Your task to perform on an android device: Do I have any events tomorrow? Image 0: 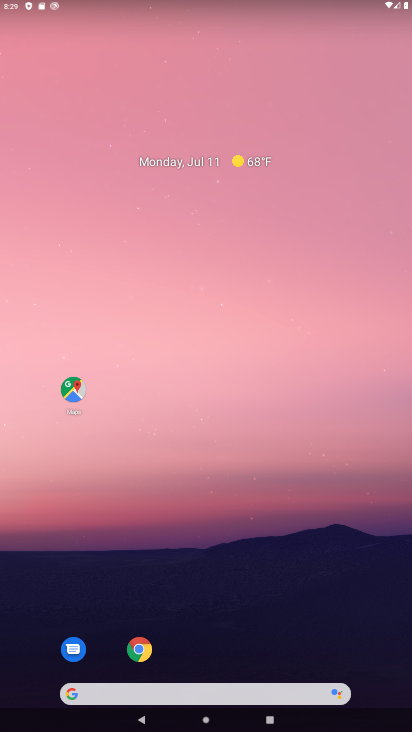
Step 0: drag from (217, 616) to (102, 62)
Your task to perform on an android device: Do I have any events tomorrow? Image 1: 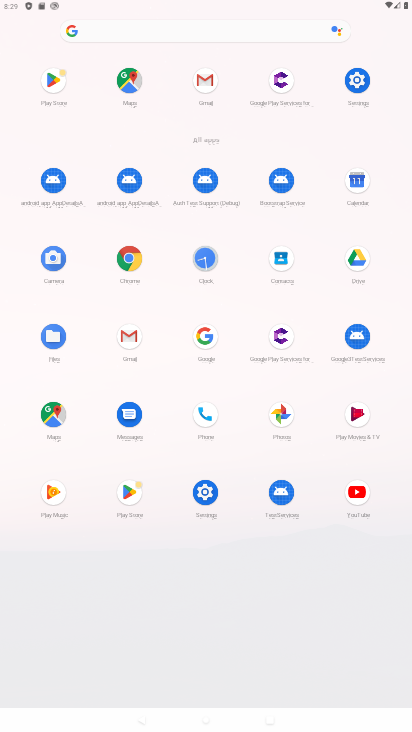
Step 1: click (354, 181)
Your task to perform on an android device: Do I have any events tomorrow? Image 2: 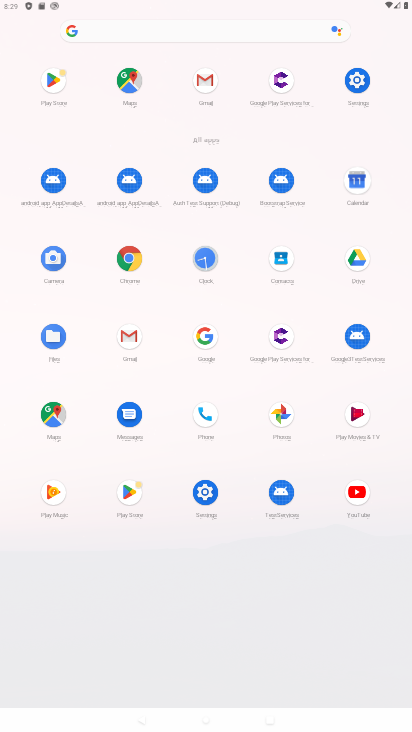
Step 2: click (354, 181)
Your task to perform on an android device: Do I have any events tomorrow? Image 3: 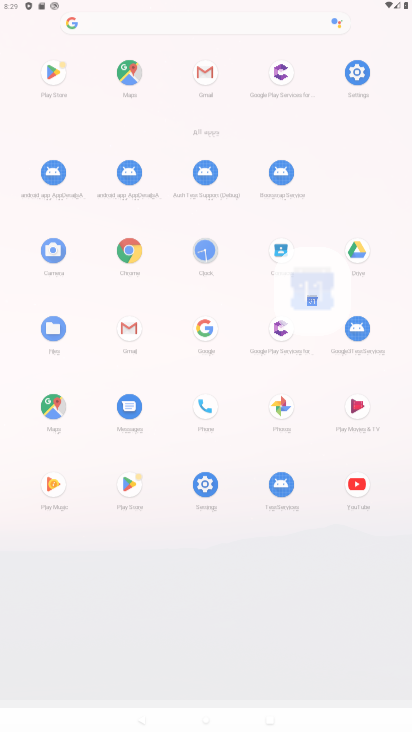
Step 3: click (354, 181)
Your task to perform on an android device: Do I have any events tomorrow? Image 4: 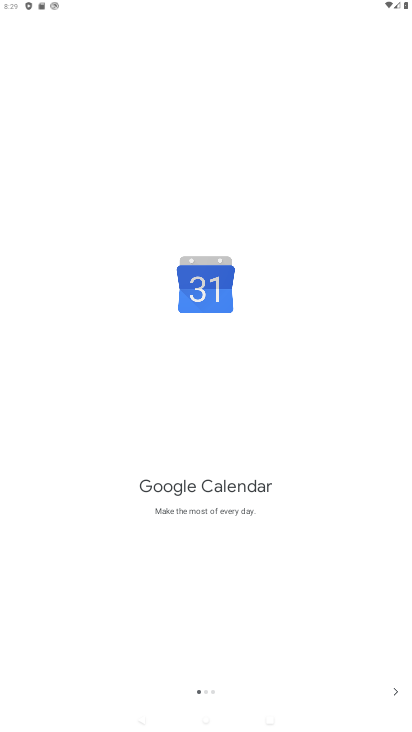
Step 4: click (392, 685)
Your task to perform on an android device: Do I have any events tomorrow? Image 5: 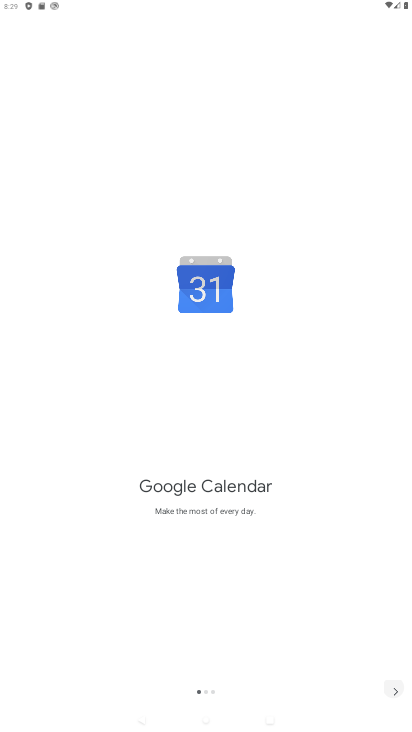
Step 5: click (392, 685)
Your task to perform on an android device: Do I have any events tomorrow? Image 6: 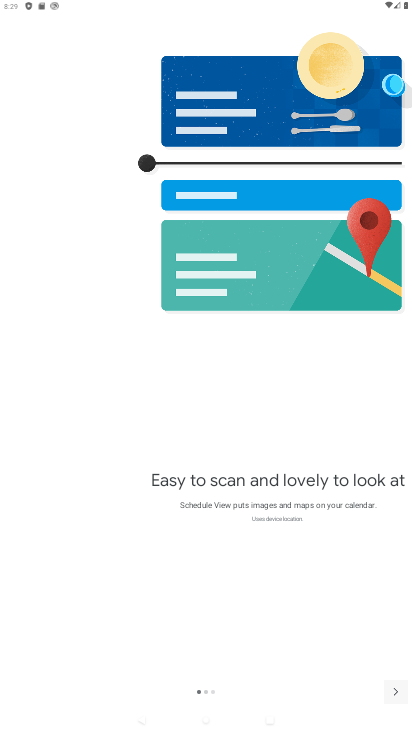
Step 6: click (394, 685)
Your task to perform on an android device: Do I have any events tomorrow? Image 7: 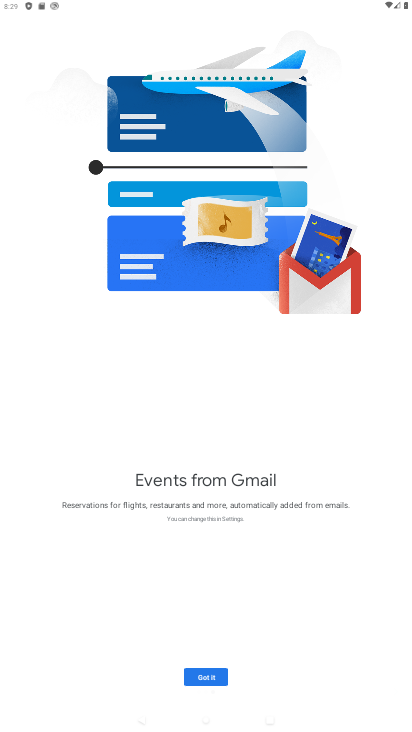
Step 7: click (395, 684)
Your task to perform on an android device: Do I have any events tomorrow? Image 8: 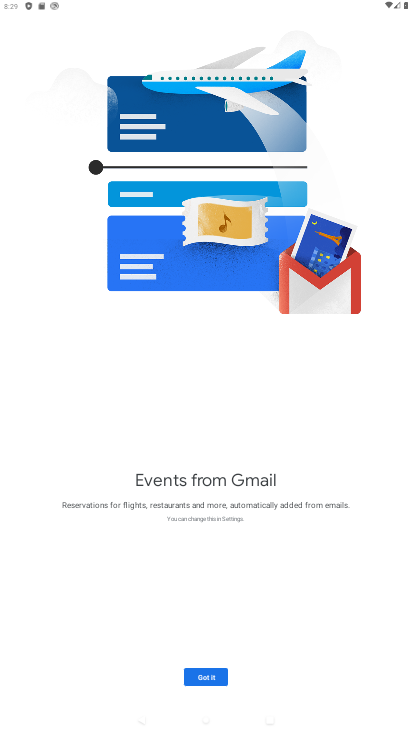
Step 8: click (396, 686)
Your task to perform on an android device: Do I have any events tomorrow? Image 9: 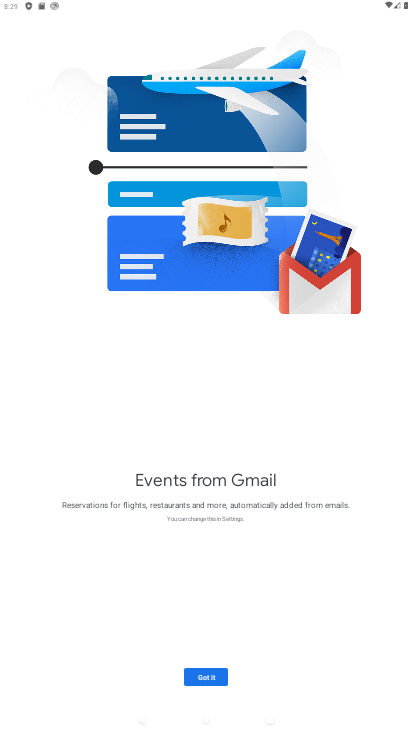
Step 9: click (218, 675)
Your task to perform on an android device: Do I have any events tomorrow? Image 10: 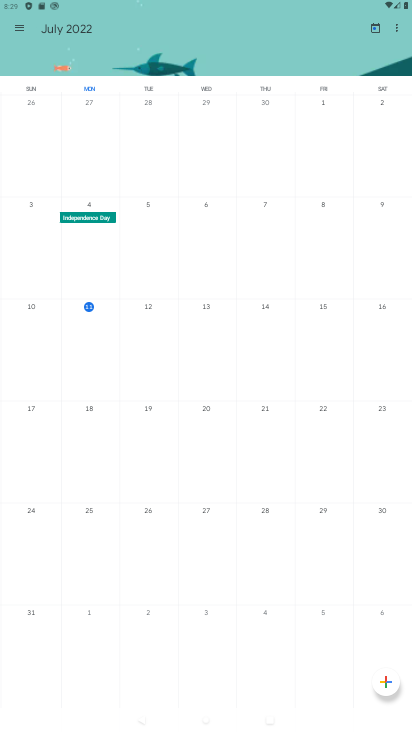
Step 10: click (207, 309)
Your task to perform on an android device: Do I have any events tomorrow? Image 11: 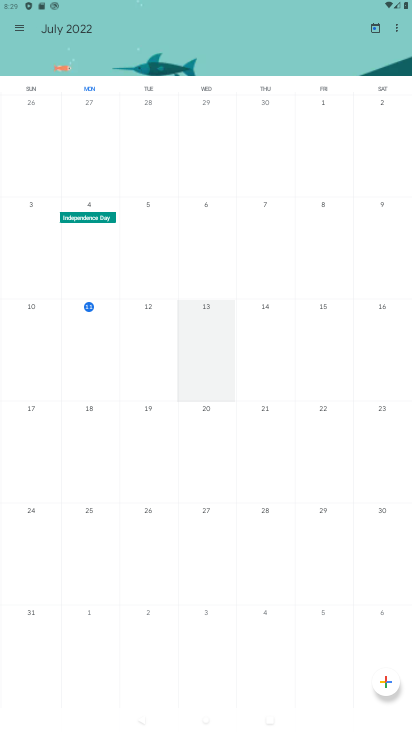
Step 11: click (207, 309)
Your task to perform on an android device: Do I have any events tomorrow? Image 12: 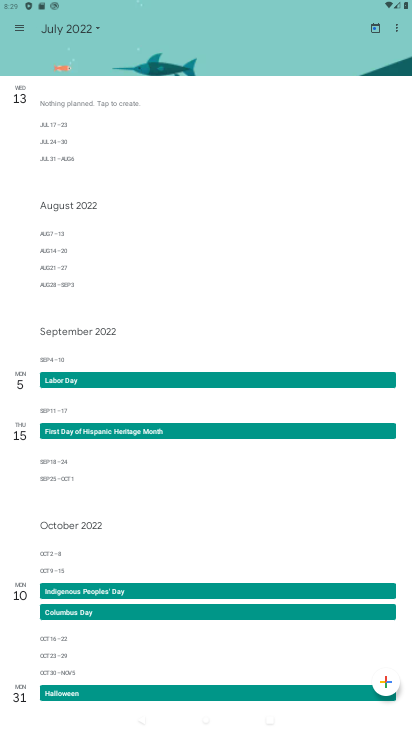
Step 12: click (207, 309)
Your task to perform on an android device: Do I have any events tomorrow? Image 13: 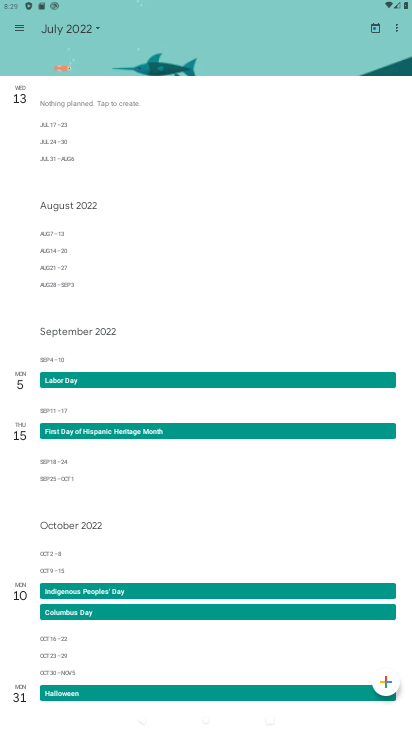
Step 13: task complete